Your task to perform on an android device: turn off translation in the chrome app Image 0: 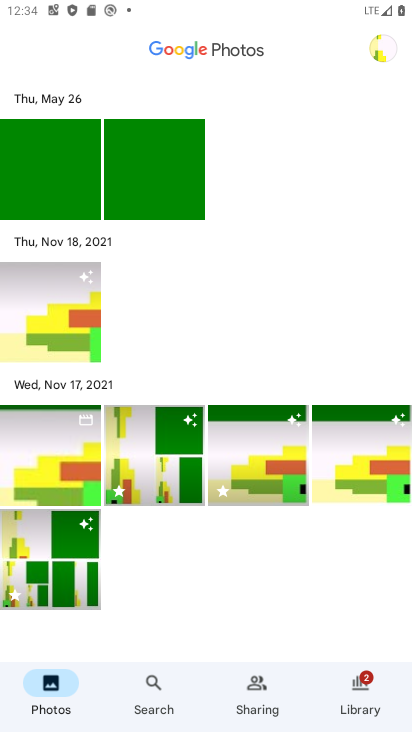
Step 0: press home button
Your task to perform on an android device: turn off translation in the chrome app Image 1: 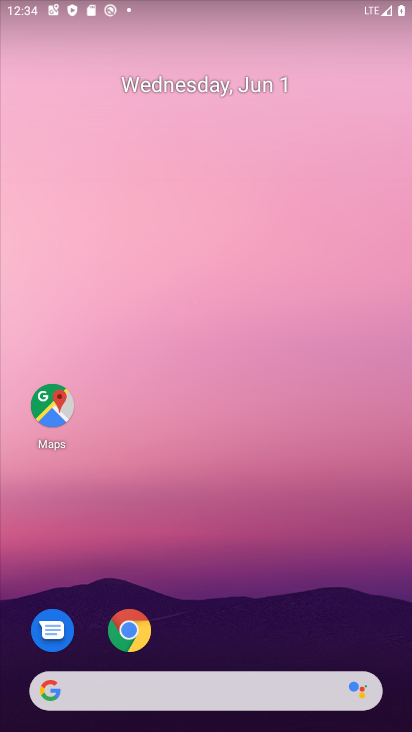
Step 1: click (127, 642)
Your task to perform on an android device: turn off translation in the chrome app Image 2: 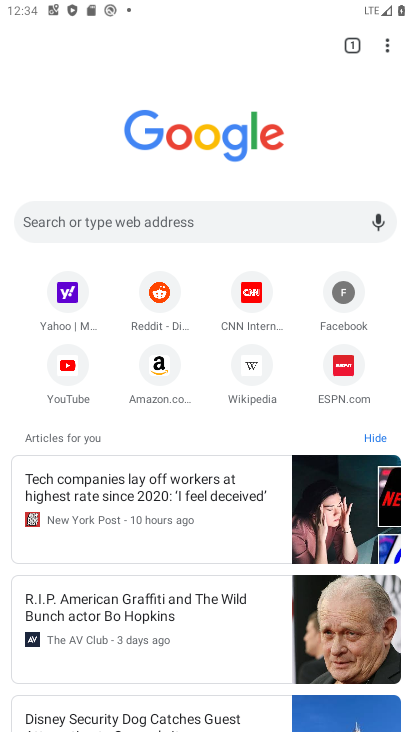
Step 2: drag from (390, 46) to (251, 388)
Your task to perform on an android device: turn off translation in the chrome app Image 3: 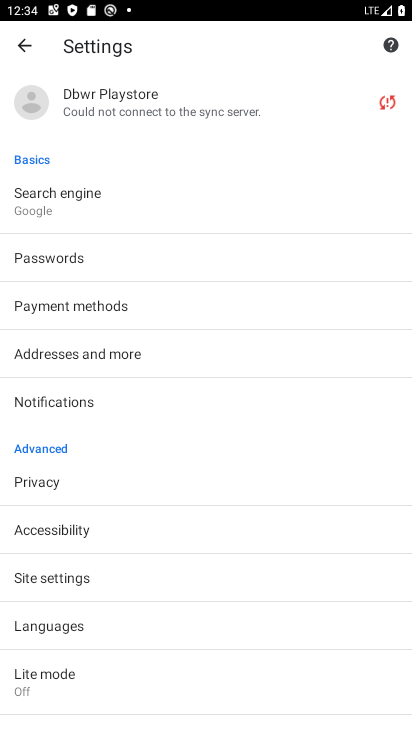
Step 3: click (109, 626)
Your task to perform on an android device: turn off translation in the chrome app Image 4: 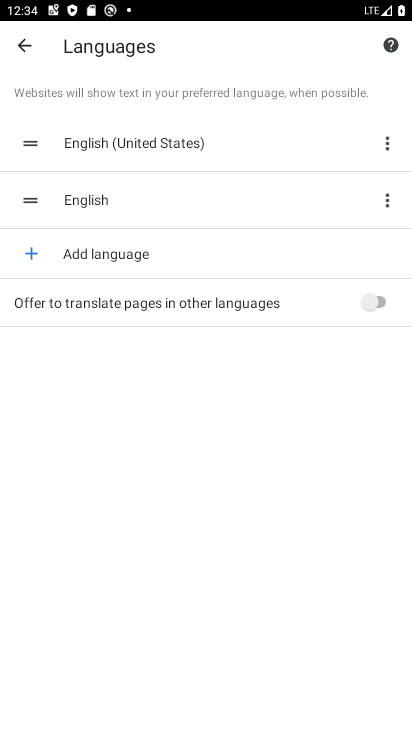
Step 4: task complete